Your task to perform on an android device: Play the last video I watched on Youtube Image 0: 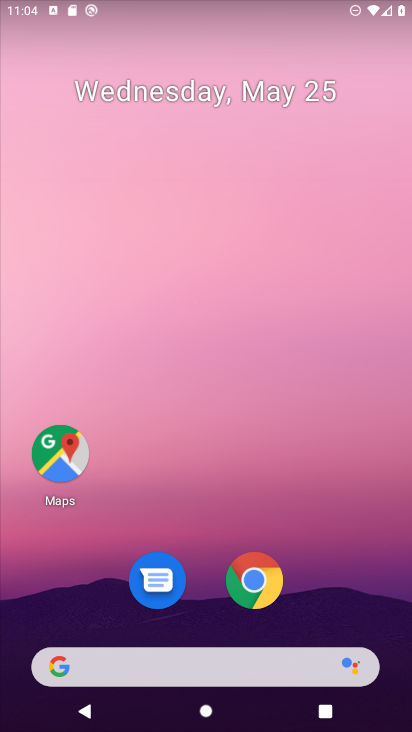
Step 0: drag from (32, 556) to (311, 103)
Your task to perform on an android device: Play the last video I watched on Youtube Image 1: 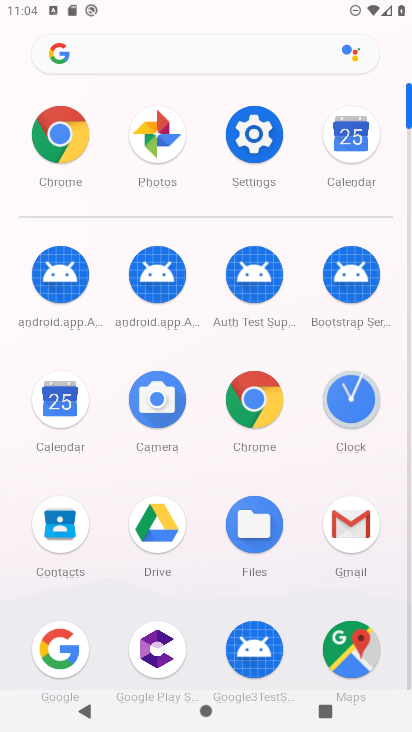
Step 1: drag from (16, 659) to (298, 125)
Your task to perform on an android device: Play the last video I watched on Youtube Image 2: 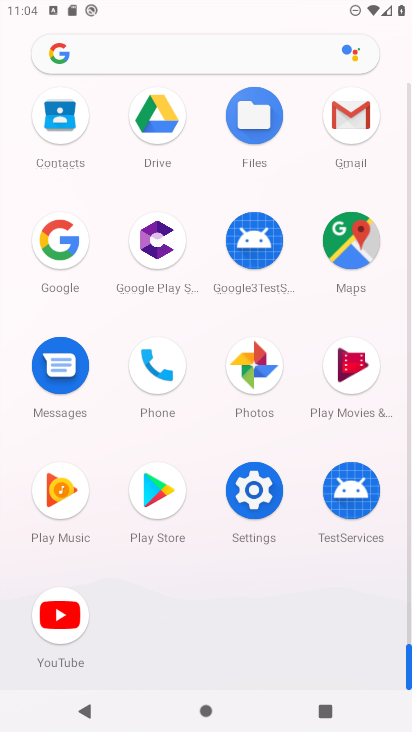
Step 2: click (74, 624)
Your task to perform on an android device: Play the last video I watched on Youtube Image 3: 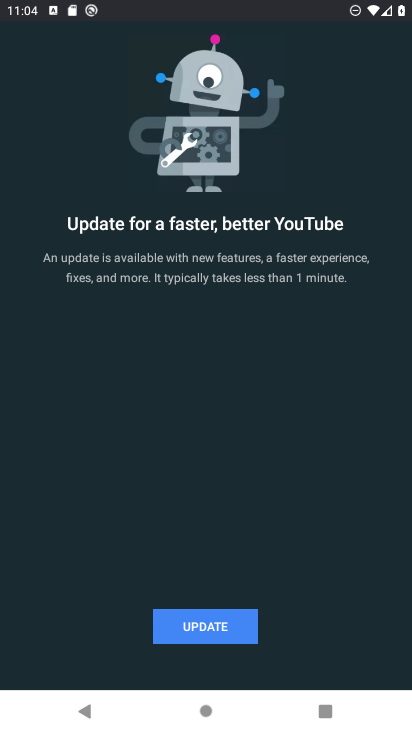
Step 3: task complete